Your task to perform on an android device: set an alarm Image 0: 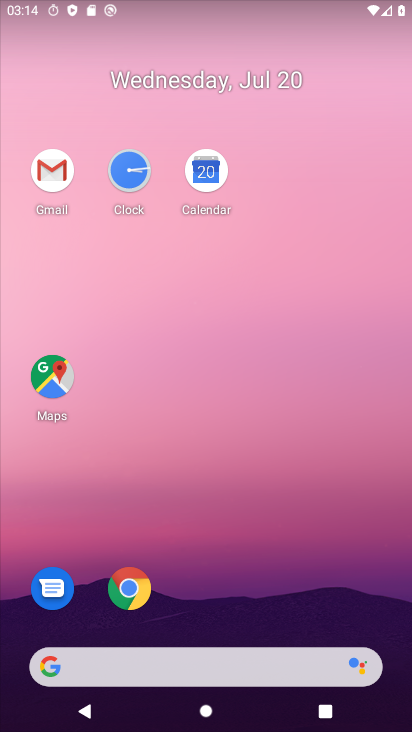
Step 0: click (132, 167)
Your task to perform on an android device: set an alarm Image 1: 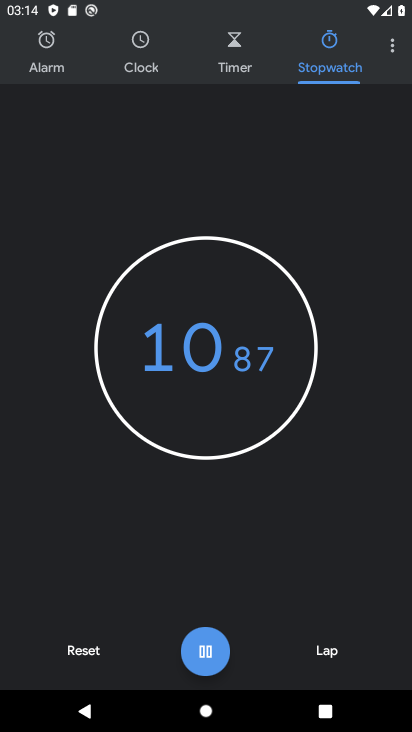
Step 1: click (43, 64)
Your task to perform on an android device: set an alarm Image 2: 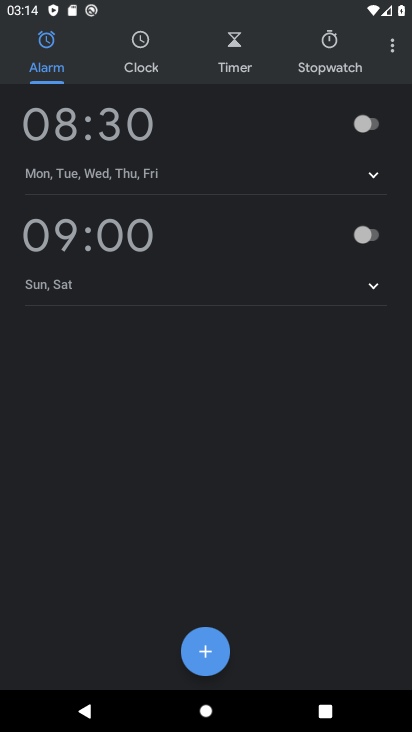
Step 2: click (321, 131)
Your task to perform on an android device: set an alarm Image 3: 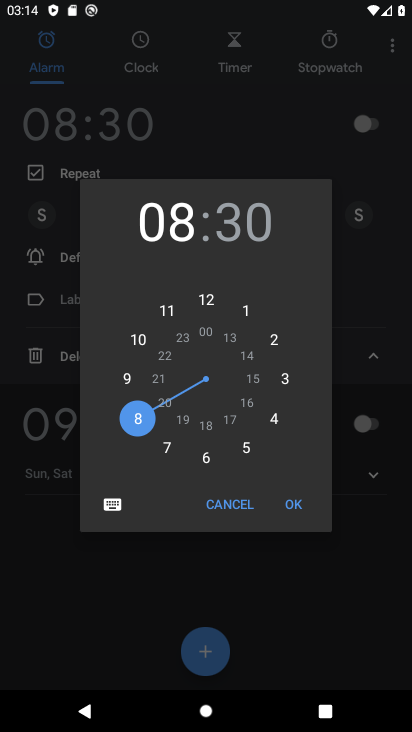
Step 3: click (288, 501)
Your task to perform on an android device: set an alarm Image 4: 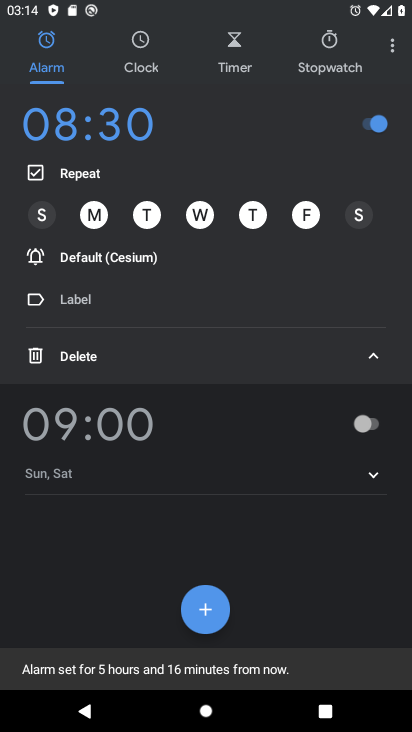
Step 4: task complete